Your task to perform on an android device: Set the phone to "Do not disturb". Image 0: 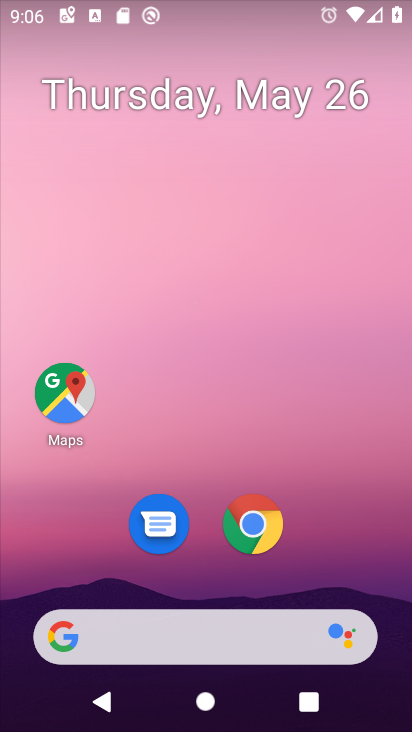
Step 0: drag from (272, 436) to (333, 36)
Your task to perform on an android device: Set the phone to "Do not disturb". Image 1: 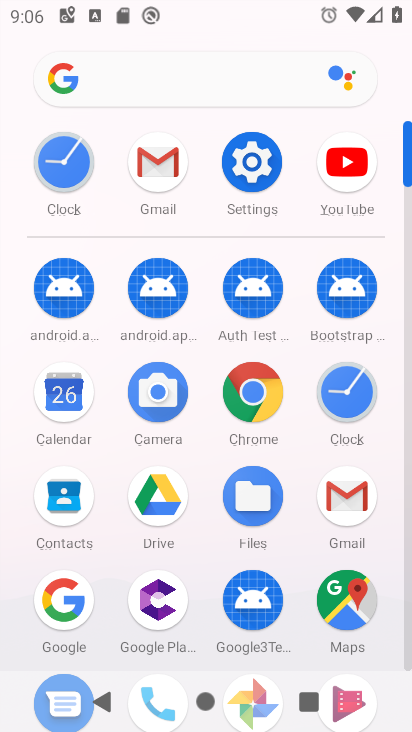
Step 1: click (260, 170)
Your task to perform on an android device: Set the phone to "Do not disturb". Image 2: 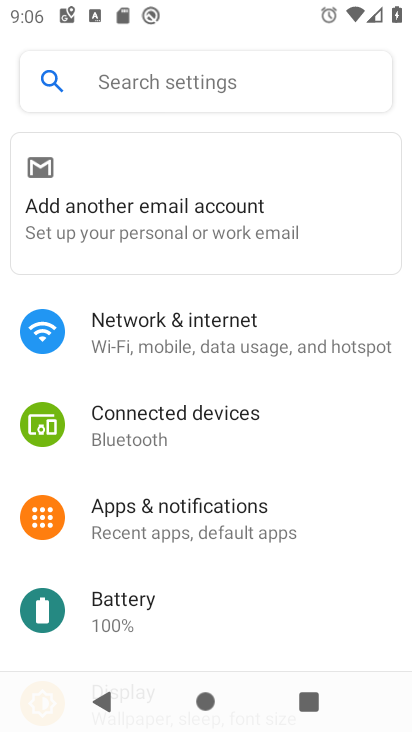
Step 2: drag from (202, 594) to (293, 291)
Your task to perform on an android device: Set the phone to "Do not disturb". Image 3: 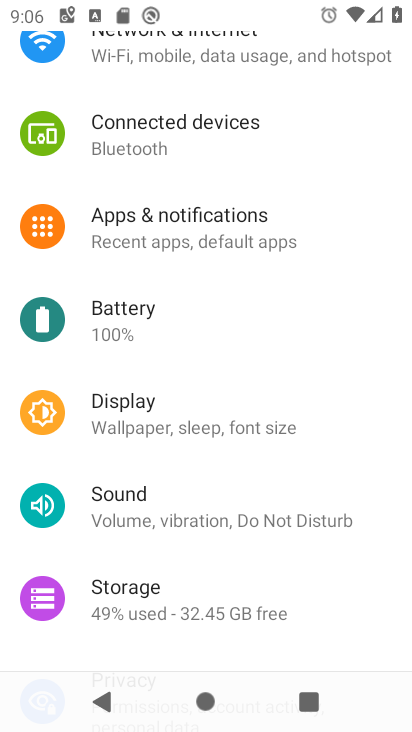
Step 3: click (228, 506)
Your task to perform on an android device: Set the phone to "Do not disturb". Image 4: 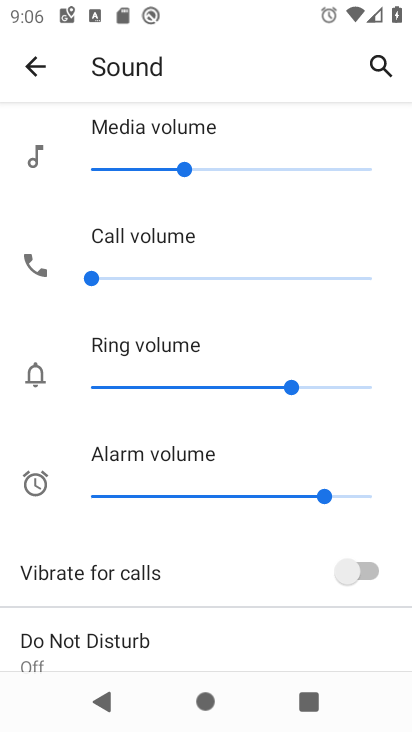
Step 4: drag from (196, 552) to (239, 369)
Your task to perform on an android device: Set the phone to "Do not disturb". Image 5: 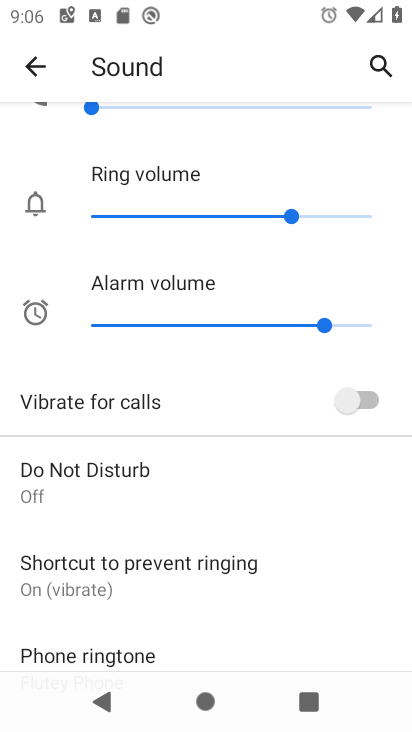
Step 5: click (183, 471)
Your task to perform on an android device: Set the phone to "Do not disturb". Image 6: 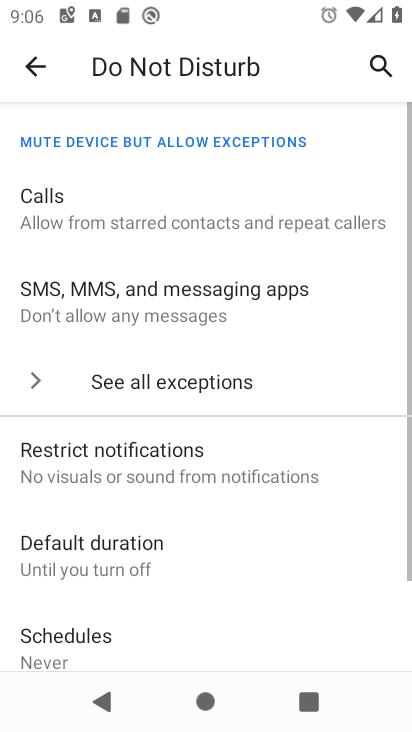
Step 6: drag from (171, 555) to (217, 280)
Your task to perform on an android device: Set the phone to "Do not disturb". Image 7: 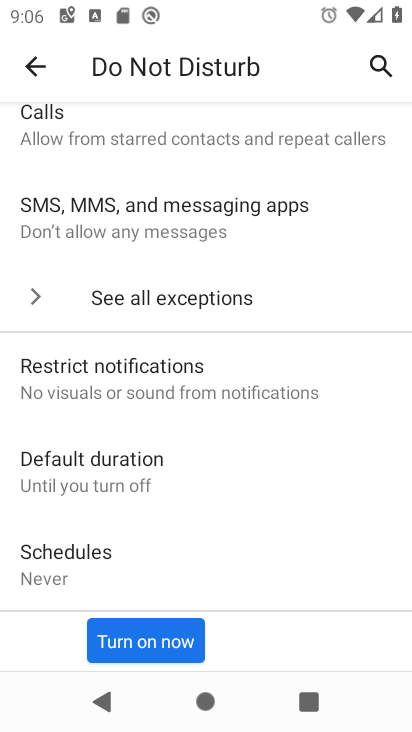
Step 7: click (148, 627)
Your task to perform on an android device: Set the phone to "Do not disturb". Image 8: 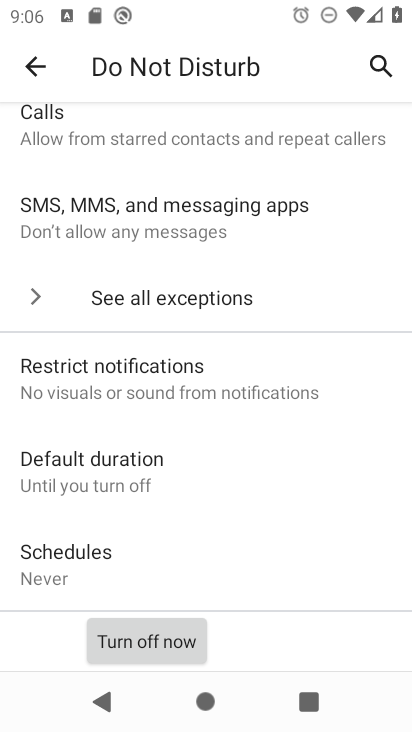
Step 8: task complete